Your task to perform on an android device: Open Chrome and go to settings Image 0: 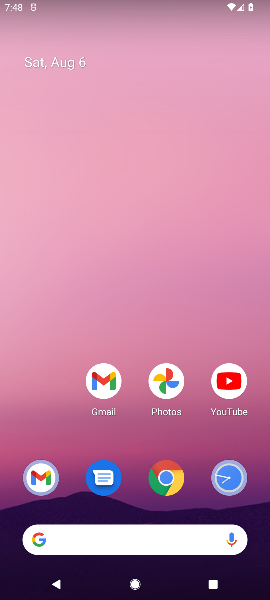
Step 0: click (177, 479)
Your task to perform on an android device: Open Chrome and go to settings Image 1: 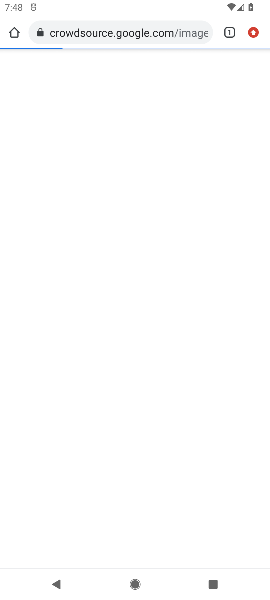
Step 1: task complete